Your task to perform on an android device: see sites visited before in the chrome app Image 0: 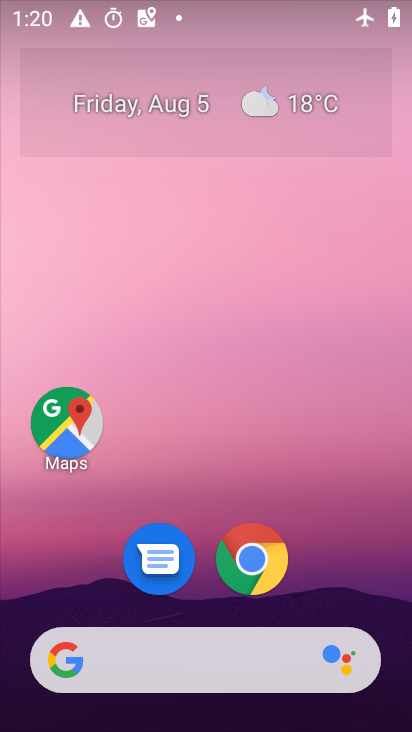
Step 0: click (255, 555)
Your task to perform on an android device: see sites visited before in the chrome app Image 1: 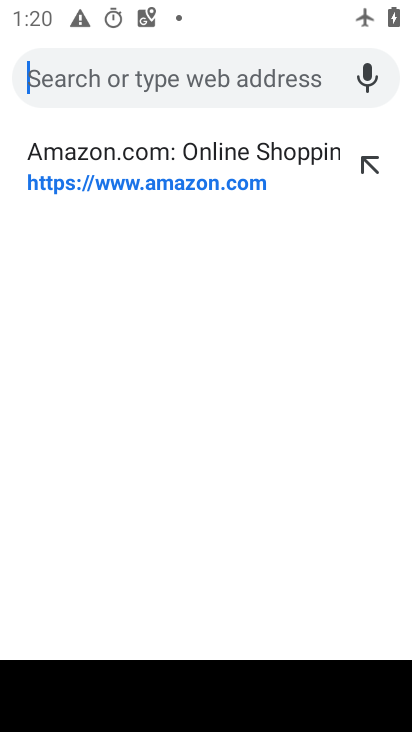
Step 1: click (70, 93)
Your task to perform on an android device: see sites visited before in the chrome app Image 2: 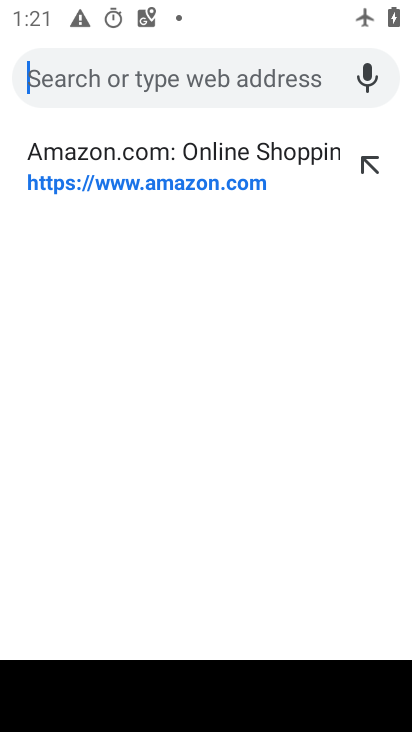
Step 2: task complete